Your task to perform on an android device: open a new tab in the chrome app Image 0: 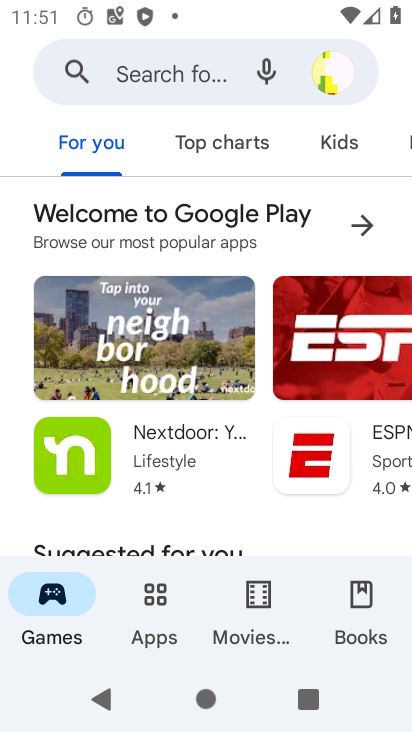
Step 0: press home button
Your task to perform on an android device: open a new tab in the chrome app Image 1: 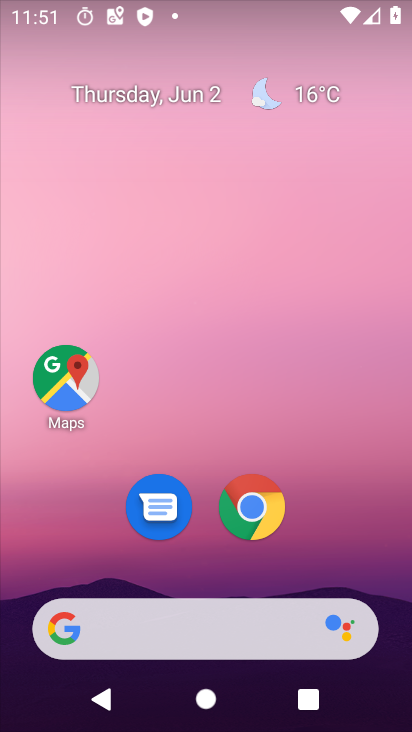
Step 1: drag from (398, 615) to (278, 152)
Your task to perform on an android device: open a new tab in the chrome app Image 2: 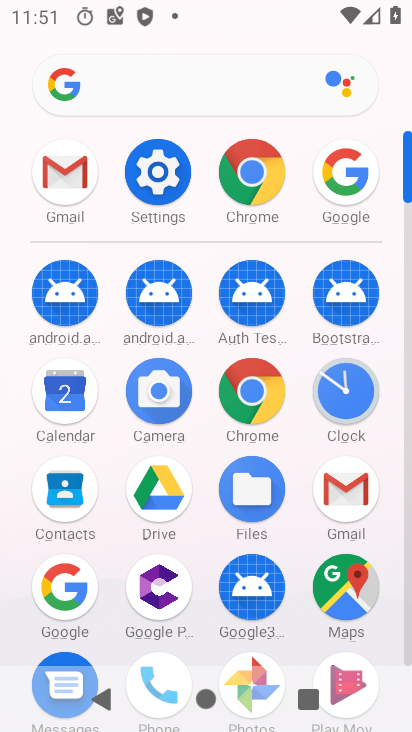
Step 2: click (262, 401)
Your task to perform on an android device: open a new tab in the chrome app Image 3: 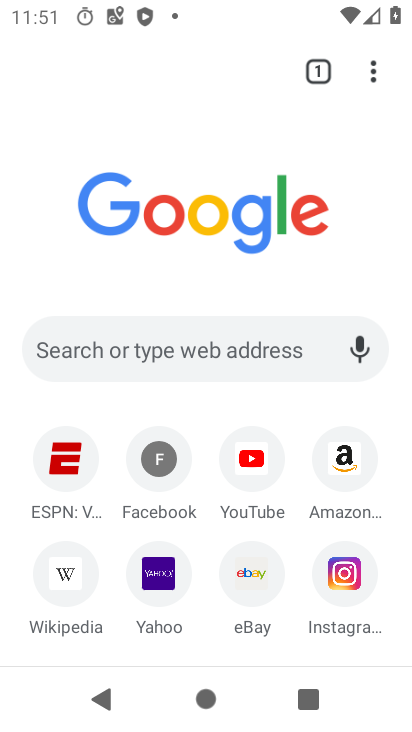
Step 3: click (378, 62)
Your task to perform on an android device: open a new tab in the chrome app Image 4: 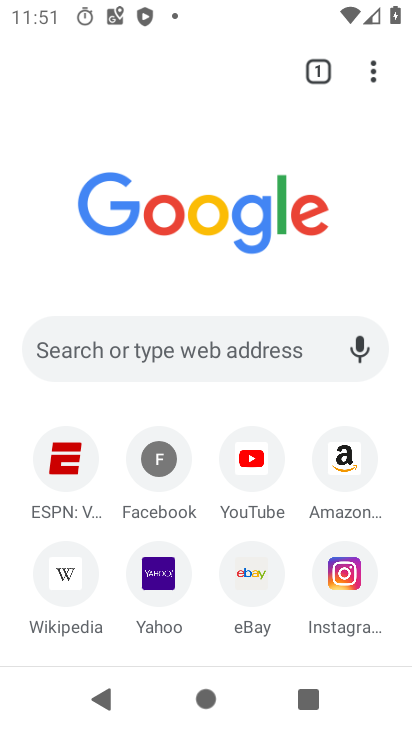
Step 4: click (369, 74)
Your task to perform on an android device: open a new tab in the chrome app Image 5: 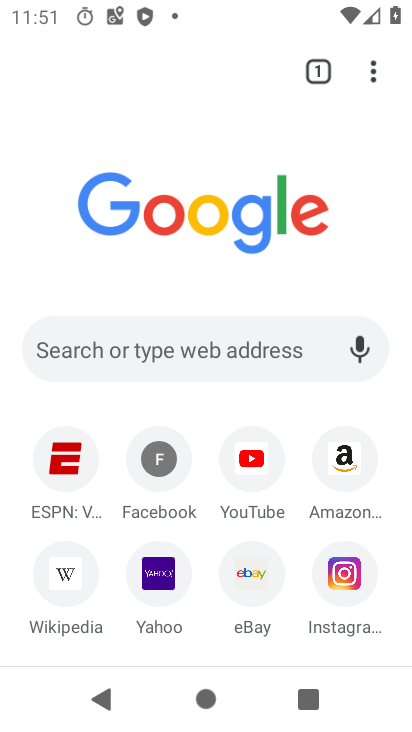
Step 5: click (376, 64)
Your task to perform on an android device: open a new tab in the chrome app Image 6: 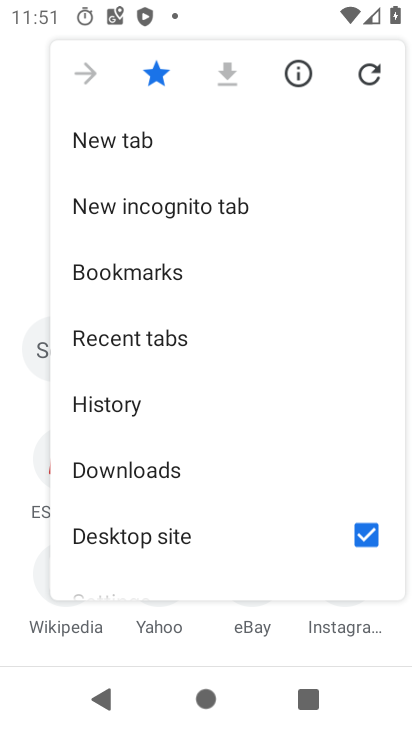
Step 6: click (165, 142)
Your task to perform on an android device: open a new tab in the chrome app Image 7: 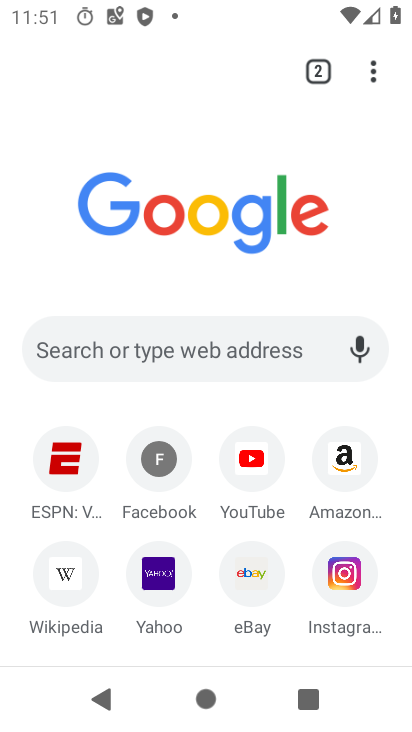
Step 7: task complete